Your task to perform on an android device: allow cookies in the chrome app Image 0: 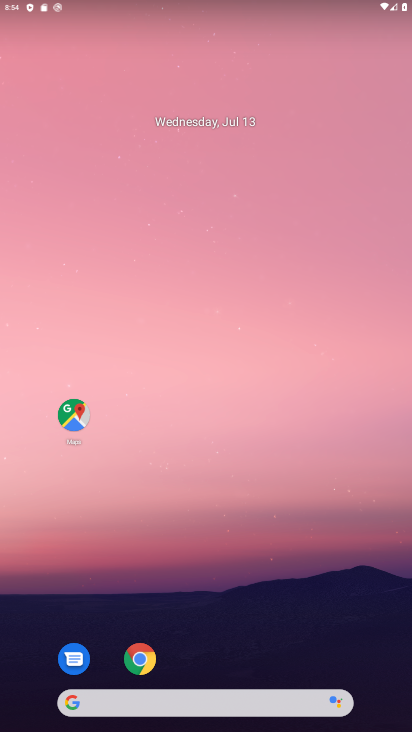
Step 0: click (135, 659)
Your task to perform on an android device: allow cookies in the chrome app Image 1: 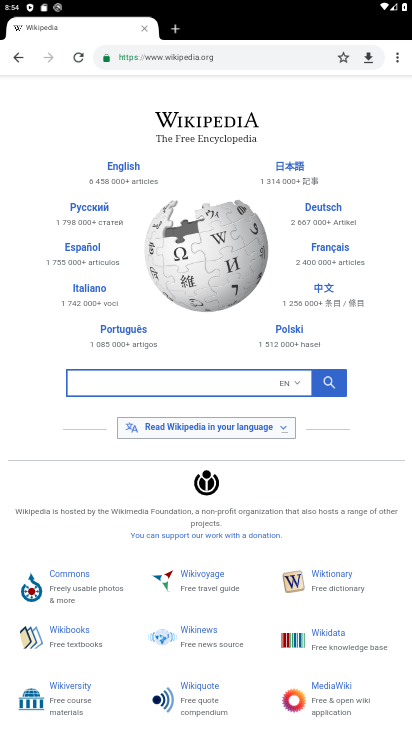
Step 1: click (398, 62)
Your task to perform on an android device: allow cookies in the chrome app Image 2: 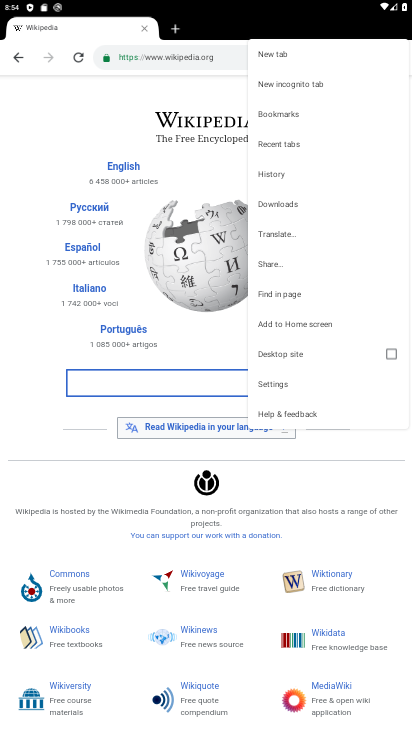
Step 2: click (268, 384)
Your task to perform on an android device: allow cookies in the chrome app Image 3: 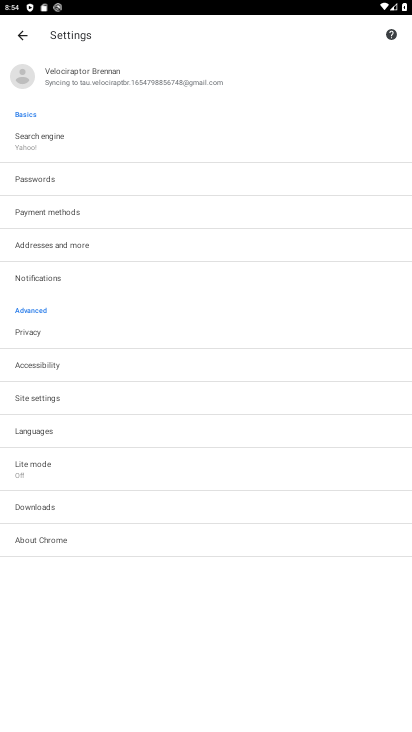
Step 3: click (36, 406)
Your task to perform on an android device: allow cookies in the chrome app Image 4: 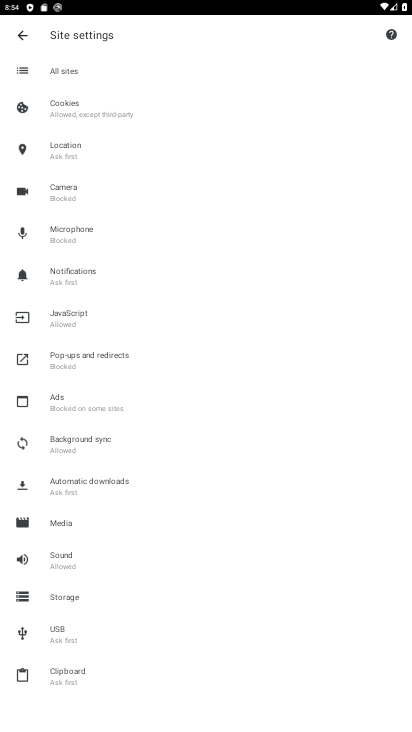
Step 4: click (74, 102)
Your task to perform on an android device: allow cookies in the chrome app Image 5: 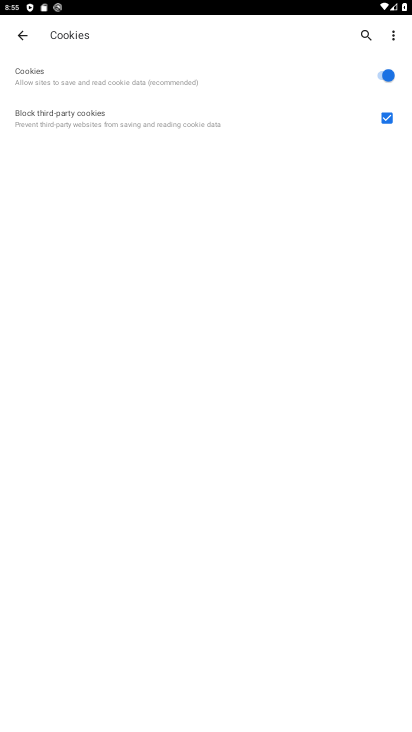
Step 5: task complete